Your task to perform on an android device: turn notification dots on Image 0: 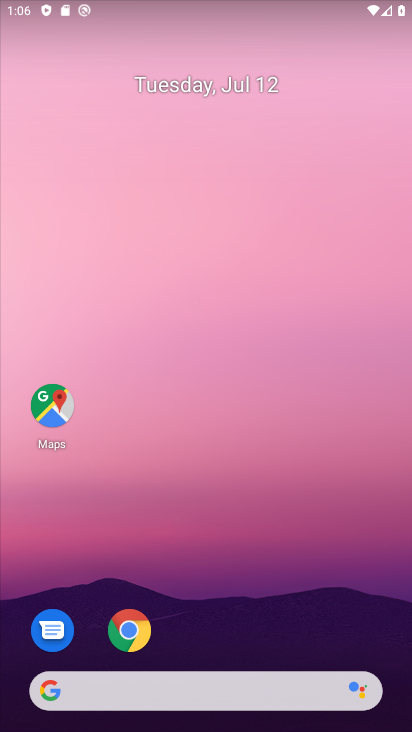
Step 0: drag from (242, 642) to (167, 195)
Your task to perform on an android device: turn notification dots on Image 1: 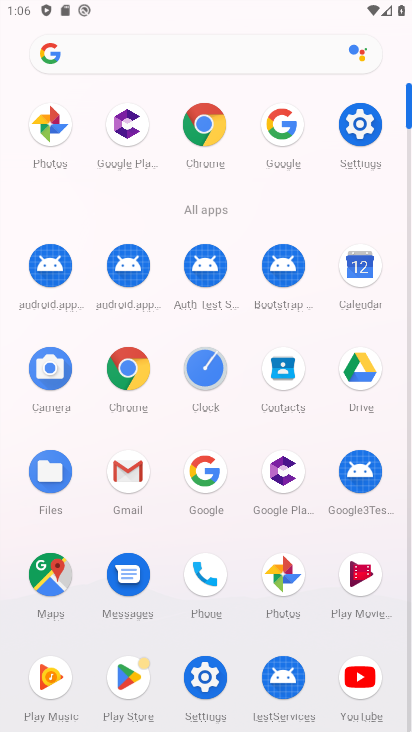
Step 1: click (367, 131)
Your task to perform on an android device: turn notification dots on Image 2: 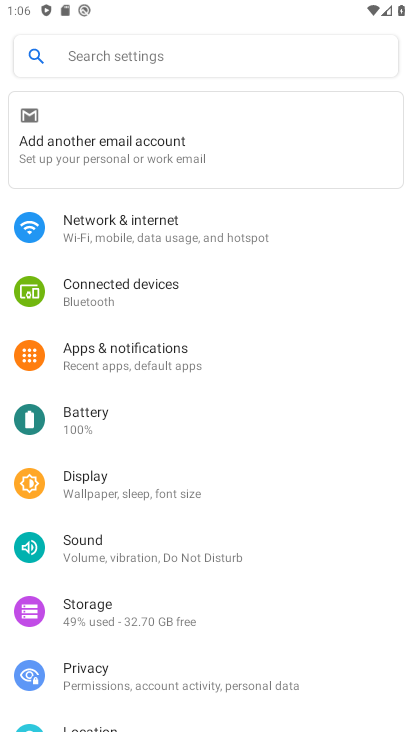
Step 2: click (91, 363)
Your task to perform on an android device: turn notification dots on Image 3: 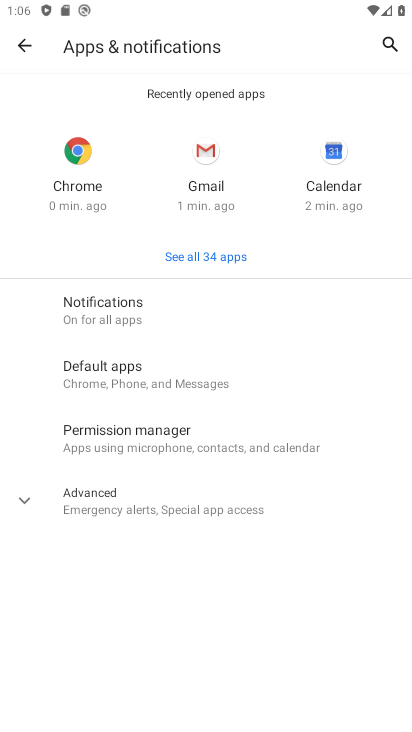
Step 3: click (120, 326)
Your task to perform on an android device: turn notification dots on Image 4: 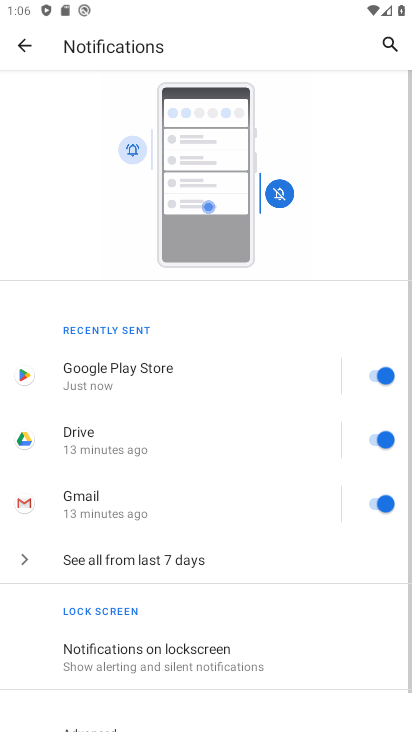
Step 4: drag from (267, 671) to (201, 266)
Your task to perform on an android device: turn notification dots on Image 5: 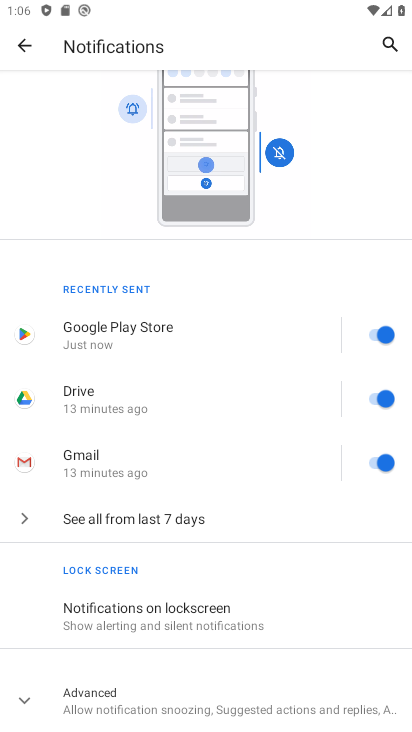
Step 5: click (123, 715)
Your task to perform on an android device: turn notification dots on Image 6: 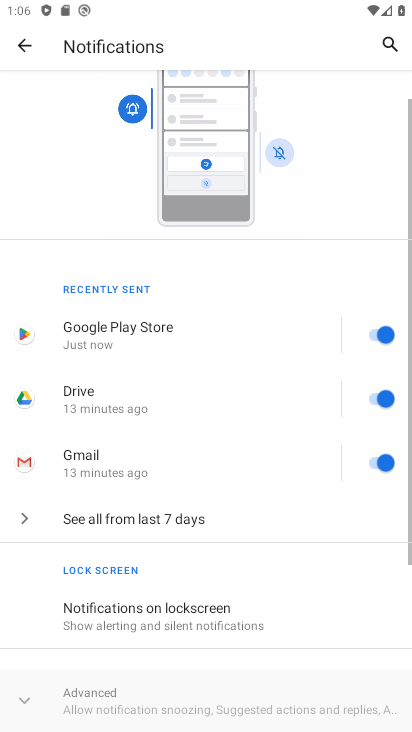
Step 6: task complete